Your task to perform on an android device: see creations saved in the google photos Image 0: 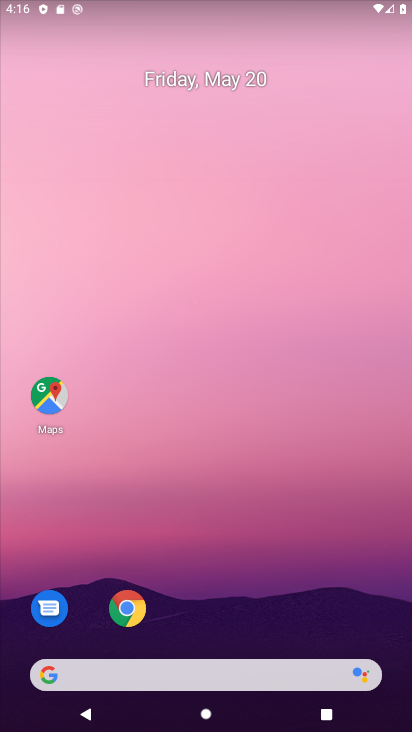
Step 0: drag from (201, 651) to (127, 105)
Your task to perform on an android device: see creations saved in the google photos Image 1: 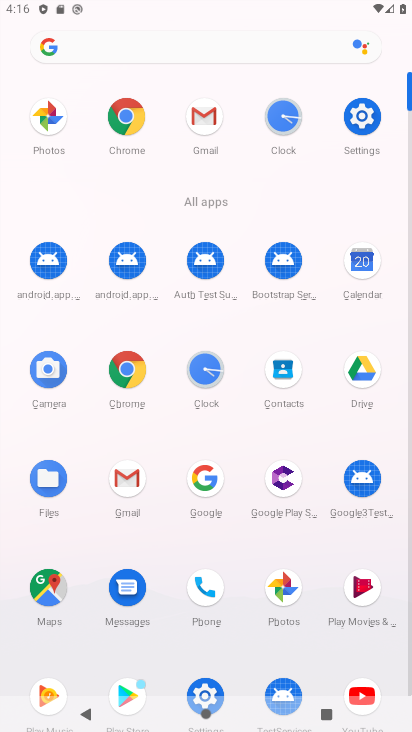
Step 1: click (286, 594)
Your task to perform on an android device: see creations saved in the google photos Image 2: 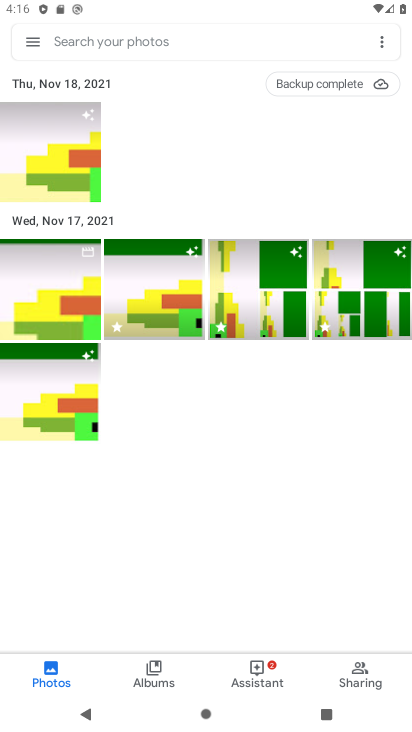
Step 2: click (204, 47)
Your task to perform on an android device: see creations saved in the google photos Image 3: 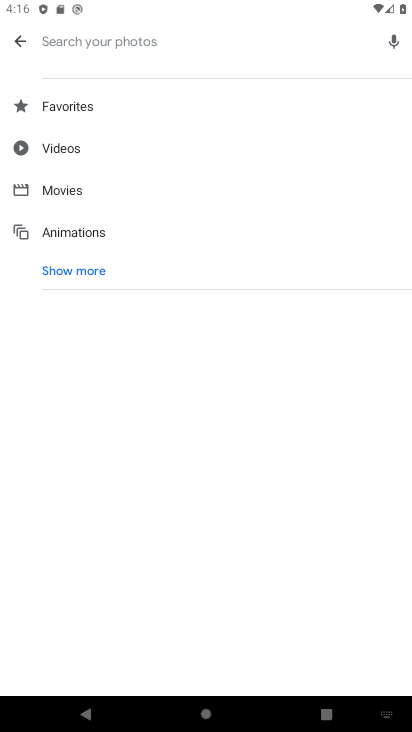
Step 3: click (62, 272)
Your task to perform on an android device: see creations saved in the google photos Image 4: 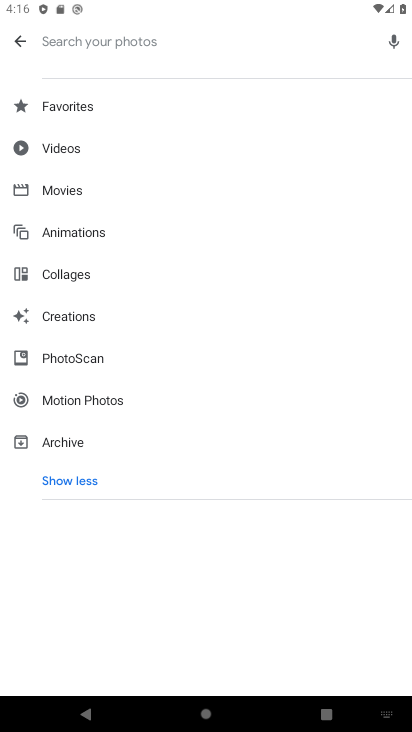
Step 4: click (69, 311)
Your task to perform on an android device: see creations saved in the google photos Image 5: 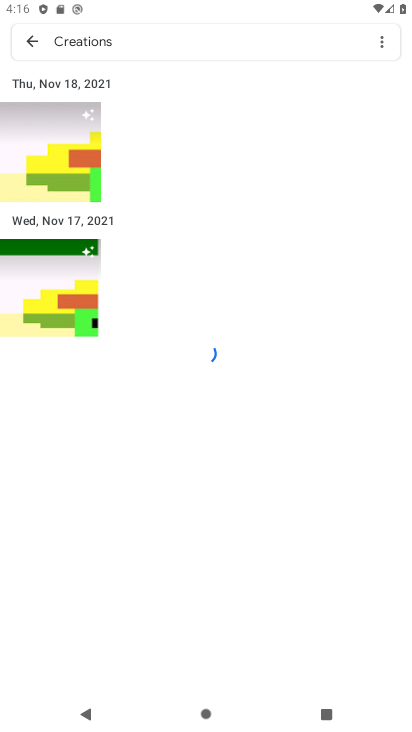
Step 5: task complete